Your task to perform on an android device: turn on priority inbox in the gmail app Image 0: 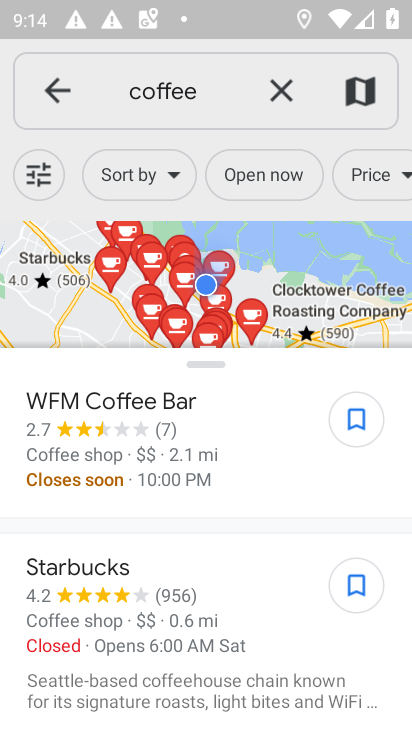
Step 0: press home button
Your task to perform on an android device: turn on priority inbox in the gmail app Image 1: 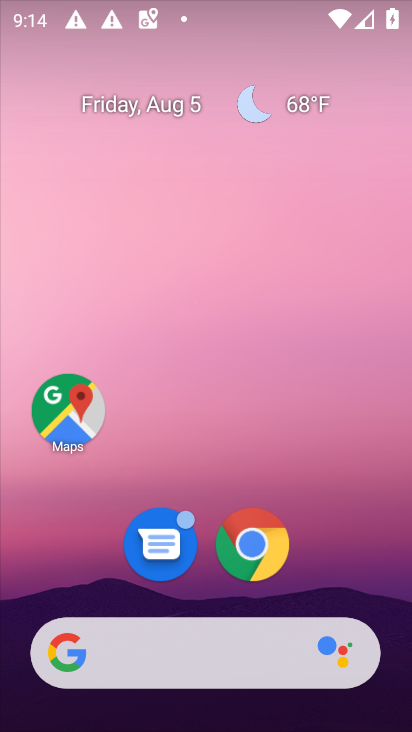
Step 1: drag from (307, 559) to (363, 0)
Your task to perform on an android device: turn on priority inbox in the gmail app Image 2: 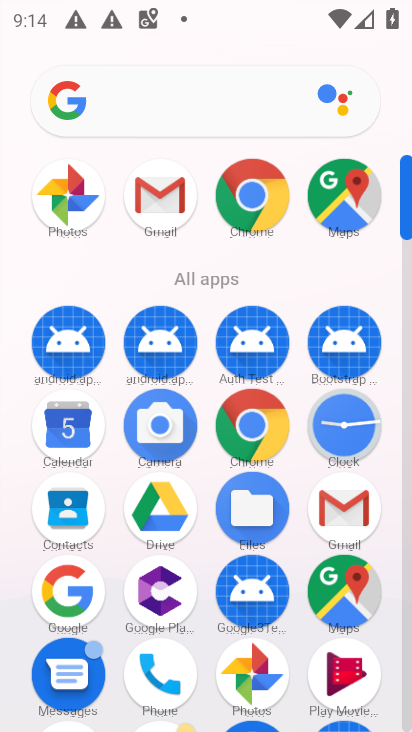
Step 2: click (164, 186)
Your task to perform on an android device: turn on priority inbox in the gmail app Image 3: 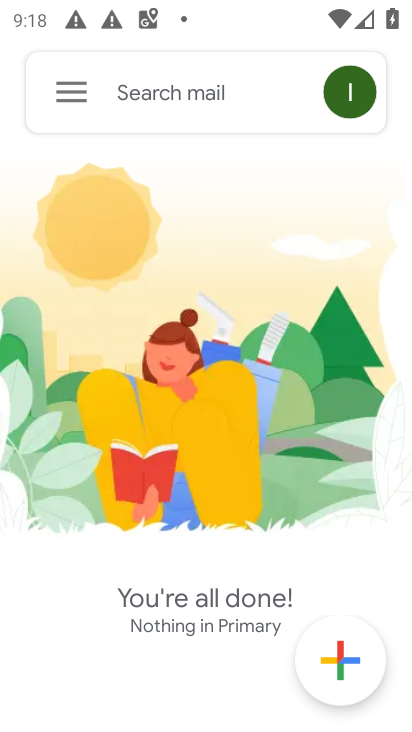
Step 3: click (79, 99)
Your task to perform on an android device: turn on priority inbox in the gmail app Image 4: 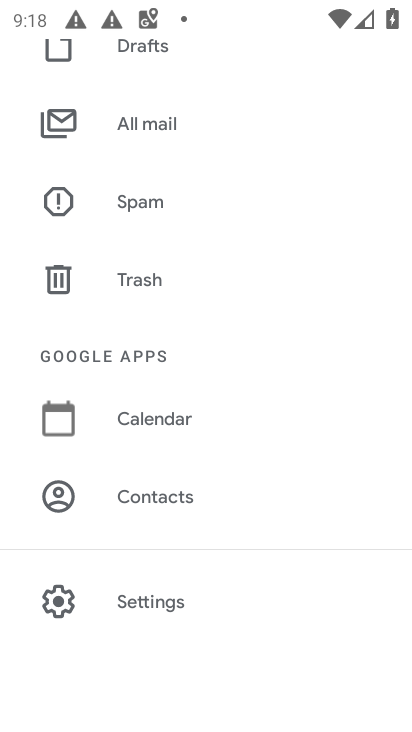
Step 4: click (146, 595)
Your task to perform on an android device: turn on priority inbox in the gmail app Image 5: 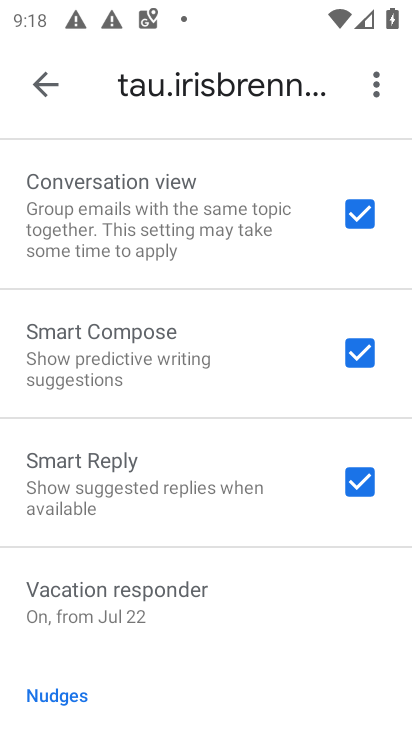
Step 5: drag from (122, 234) to (150, 693)
Your task to perform on an android device: turn on priority inbox in the gmail app Image 6: 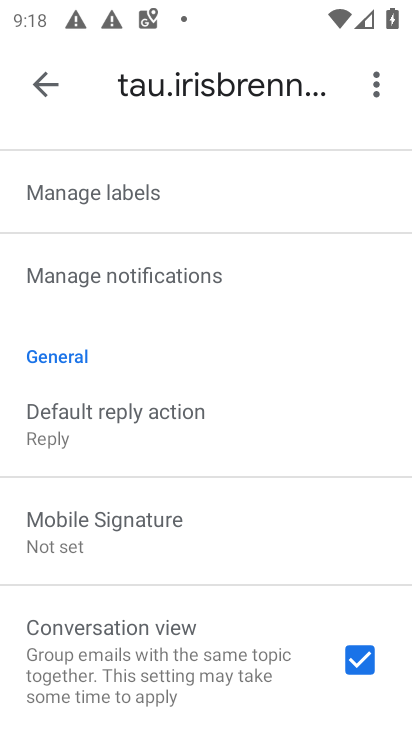
Step 6: drag from (229, 220) to (260, 716)
Your task to perform on an android device: turn on priority inbox in the gmail app Image 7: 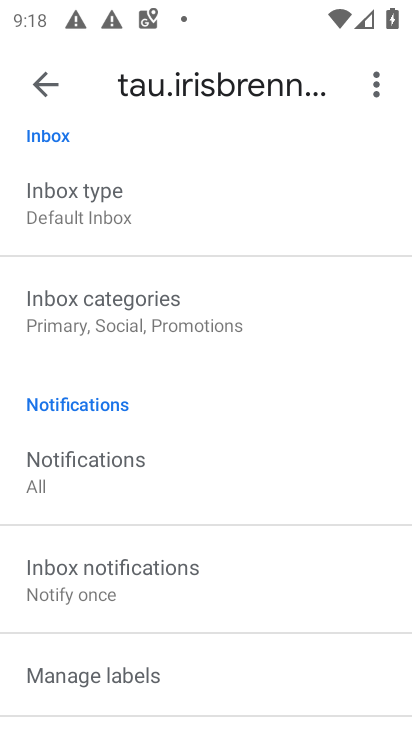
Step 7: click (104, 221)
Your task to perform on an android device: turn on priority inbox in the gmail app Image 8: 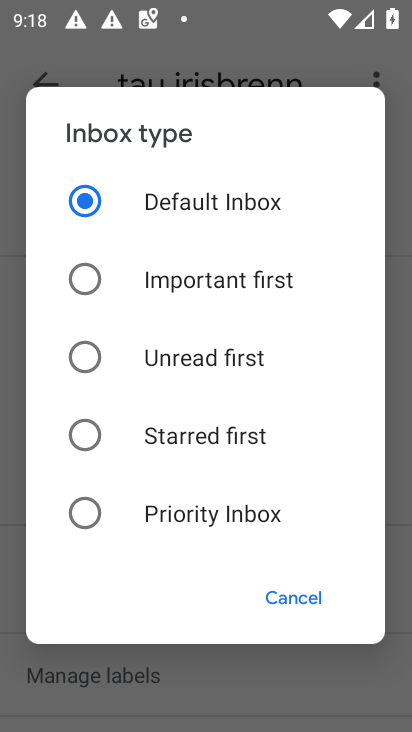
Step 8: click (173, 518)
Your task to perform on an android device: turn on priority inbox in the gmail app Image 9: 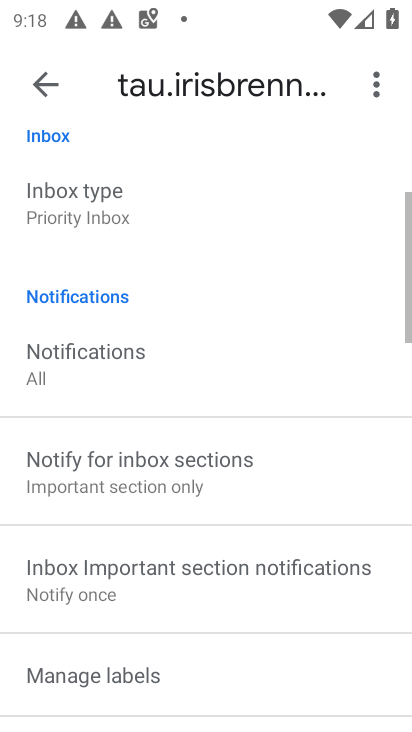
Step 9: task complete